Your task to perform on an android device: empty trash in the gmail app Image 0: 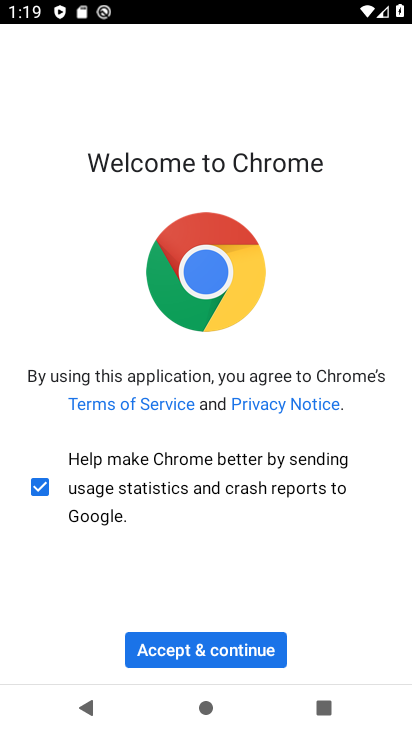
Step 0: press home button
Your task to perform on an android device: empty trash in the gmail app Image 1: 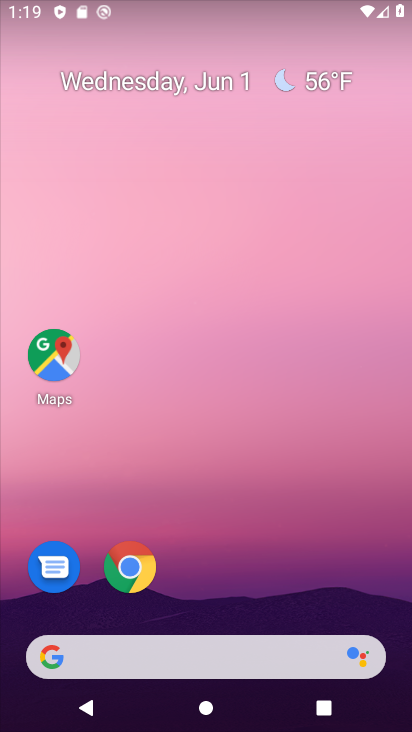
Step 1: drag from (210, 649) to (268, 289)
Your task to perform on an android device: empty trash in the gmail app Image 2: 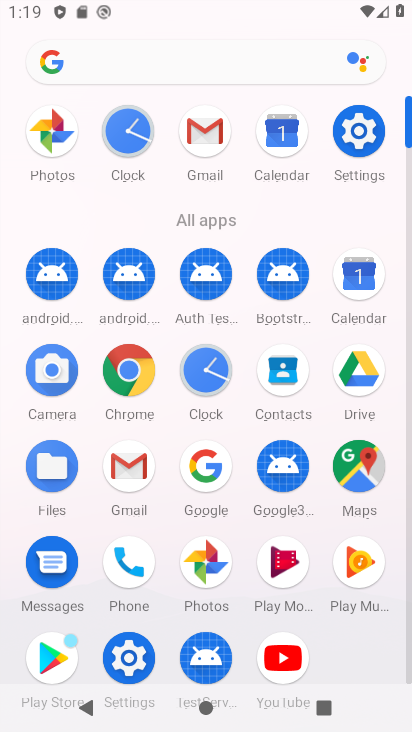
Step 2: click (124, 469)
Your task to perform on an android device: empty trash in the gmail app Image 3: 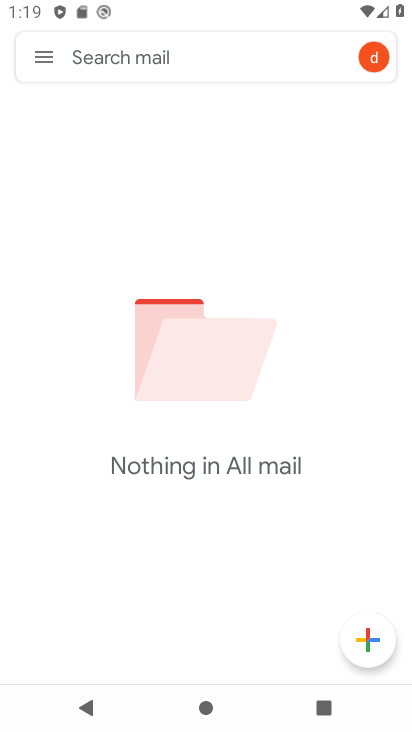
Step 3: click (41, 69)
Your task to perform on an android device: empty trash in the gmail app Image 4: 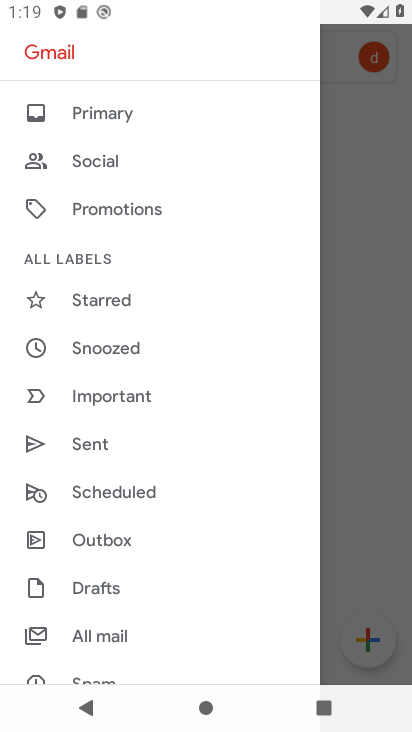
Step 4: drag from (140, 618) to (154, 239)
Your task to perform on an android device: empty trash in the gmail app Image 5: 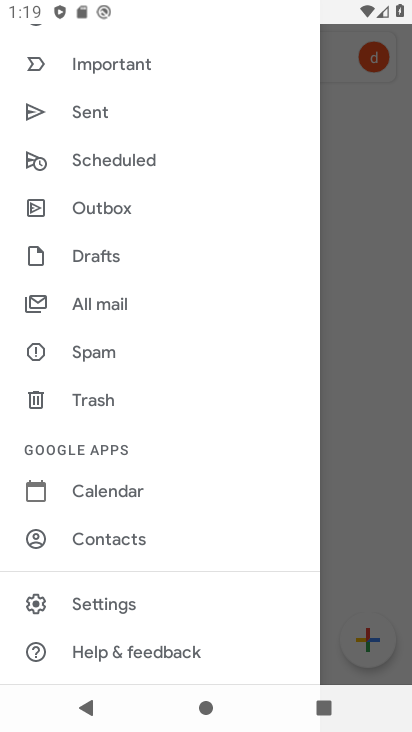
Step 5: click (82, 404)
Your task to perform on an android device: empty trash in the gmail app Image 6: 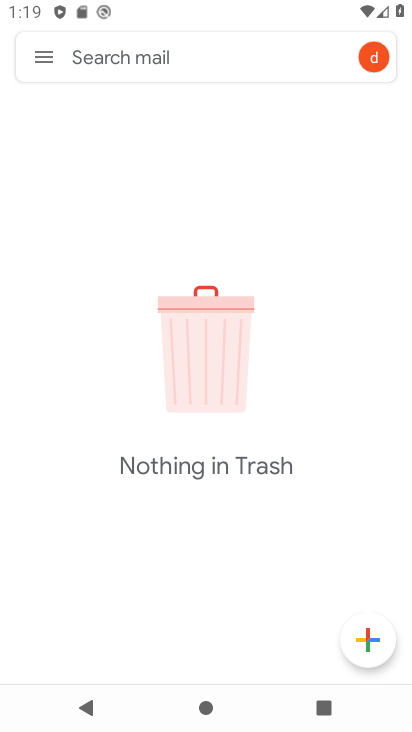
Step 6: task complete